Your task to perform on an android device: change the clock display to show seconds Image 0: 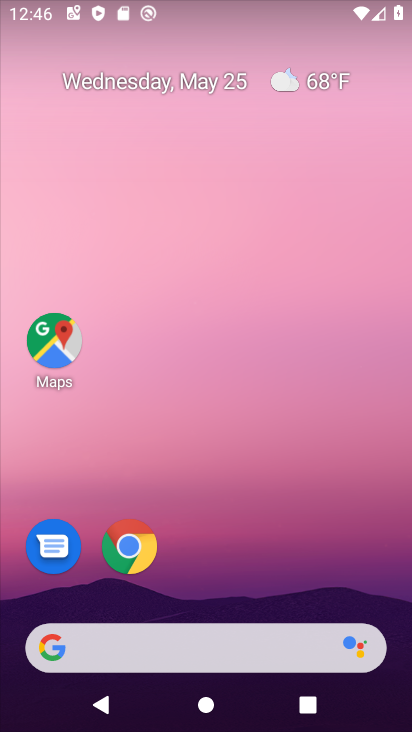
Step 0: drag from (279, 595) to (271, 147)
Your task to perform on an android device: change the clock display to show seconds Image 1: 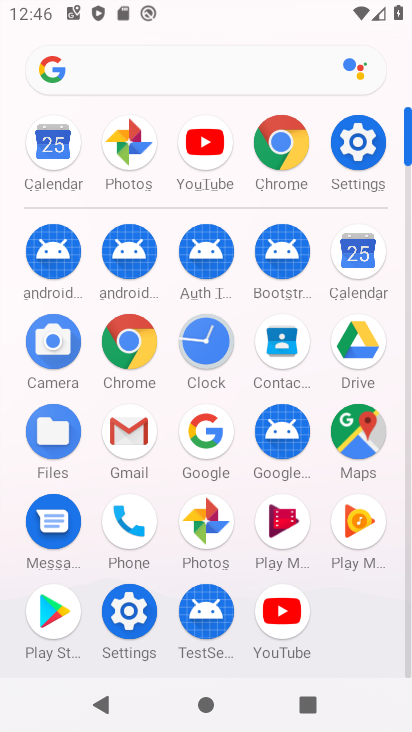
Step 1: click (203, 338)
Your task to perform on an android device: change the clock display to show seconds Image 2: 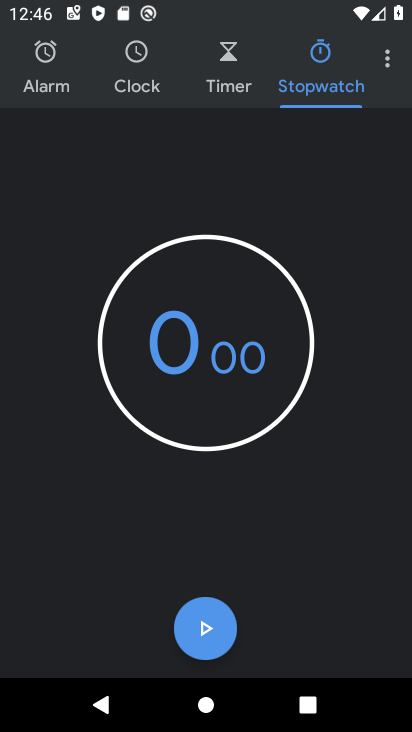
Step 2: click (392, 64)
Your task to perform on an android device: change the clock display to show seconds Image 3: 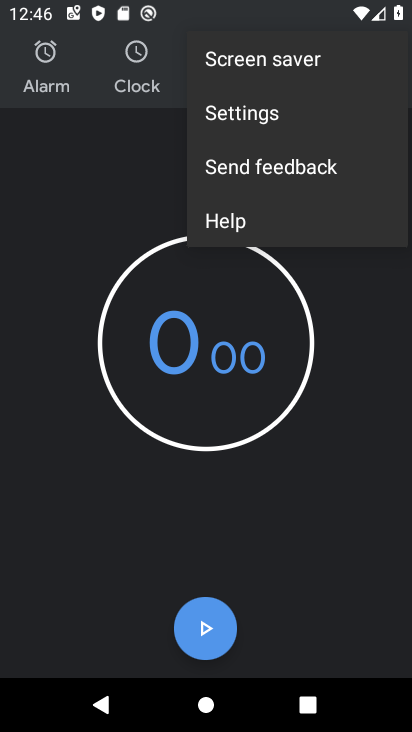
Step 3: click (322, 115)
Your task to perform on an android device: change the clock display to show seconds Image 4: 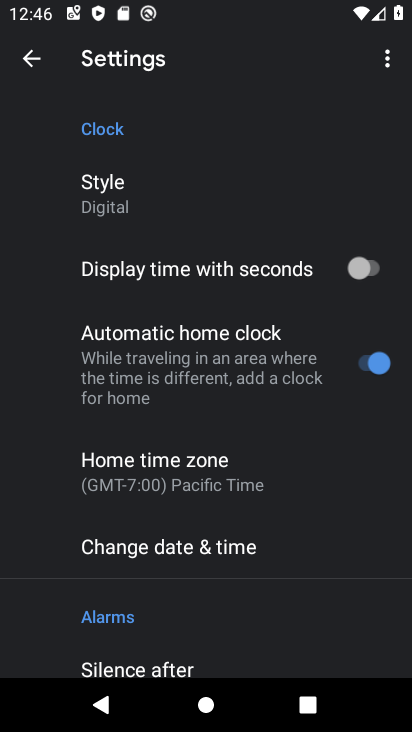
Step 4: click (196, 192)
Your task to perform on an android device: change the clock display to show seconds Image 5: 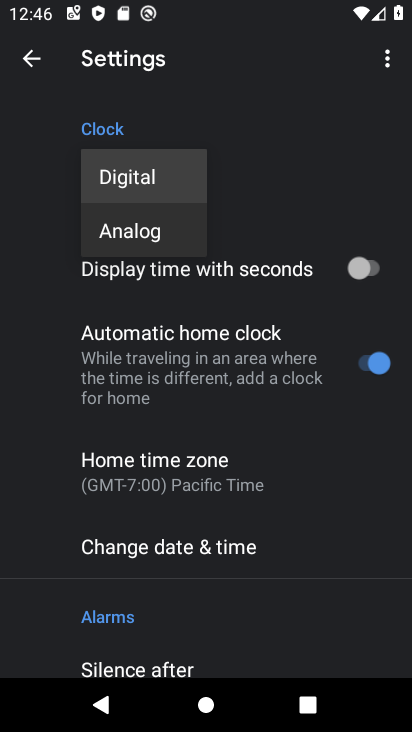
Step 5: click (52, 85)
Your task to perform on an android device: change the clock display to show seconds Image 6: 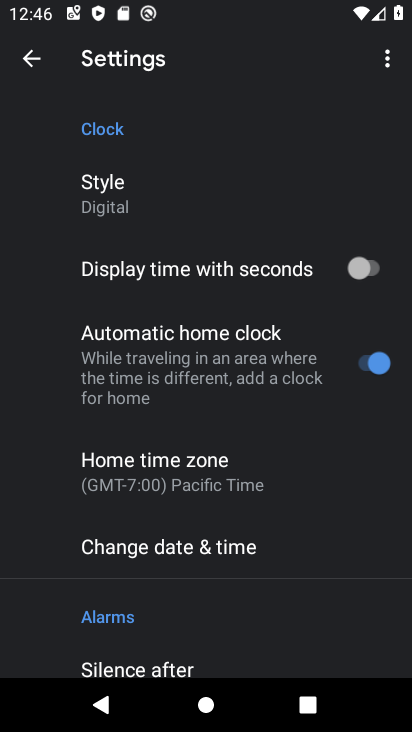
Step 6: click (362, 294)
Your task to perform on an android device: change the clock display to show seconds Image 7: 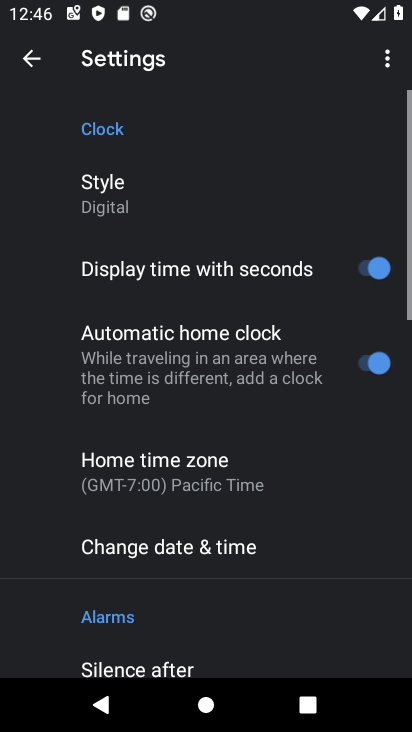
Step 7: task complete